Your task to perform on an android device: Is it going to rain today? Image 0: 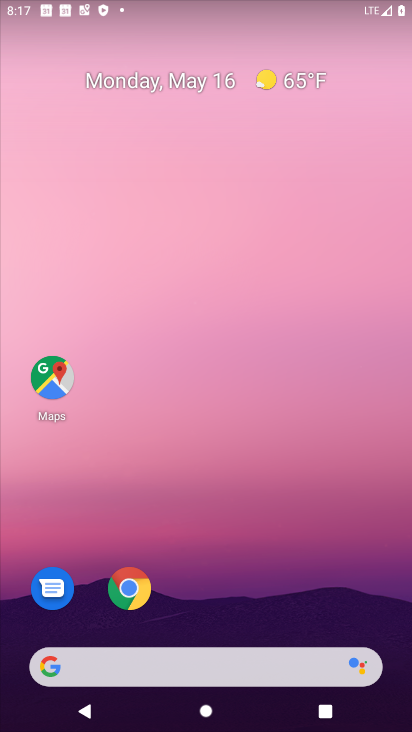
Step 0: drag from (216, 538) to (198, 25)
Your task to perform on an android device: Is it going to rain today? Image 1: 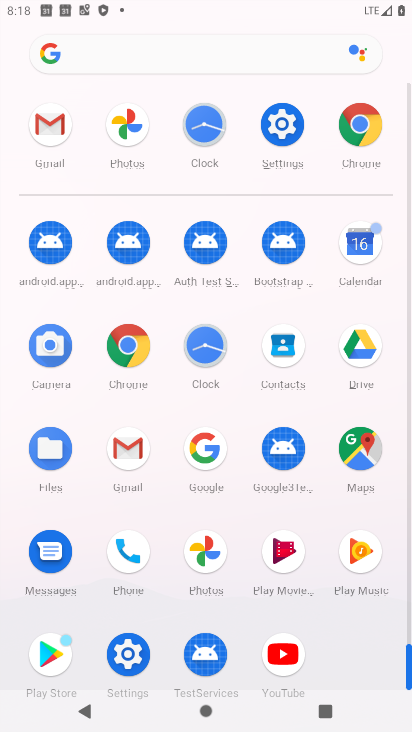
Step 1: click (125, 344)
Your task to perform on an android device: Is it going to rain today? Image 2: 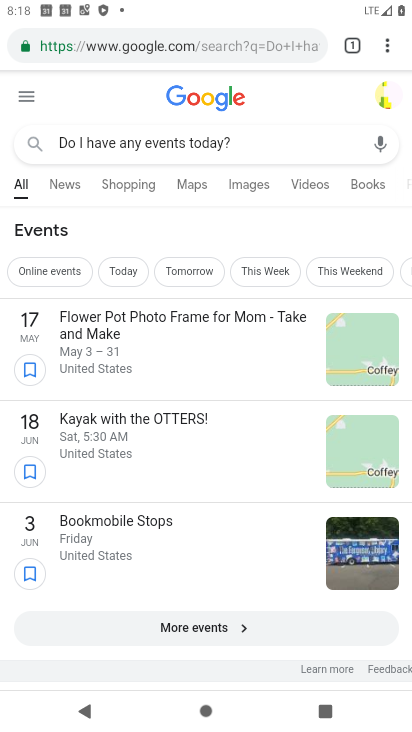
Step 2: click (267, 60)
Your task to perform on an android device: Is it going to rain today? Image 3: 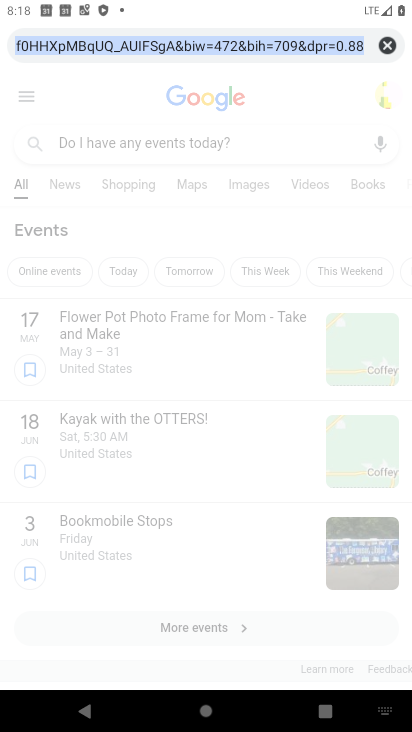
Step 3: click (381, 46)
Your task to perform on an android device: Is it going to rain today? Image 4: 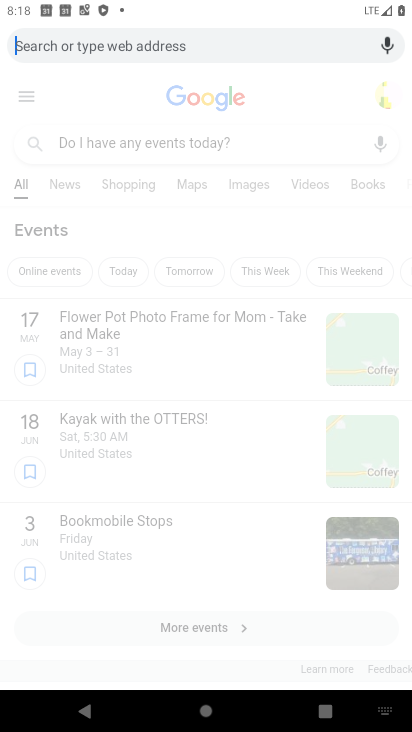
Step 4: type "Is it going to rain today?"
Your task to perform on an android device: Is it going to rain today? Image 5: 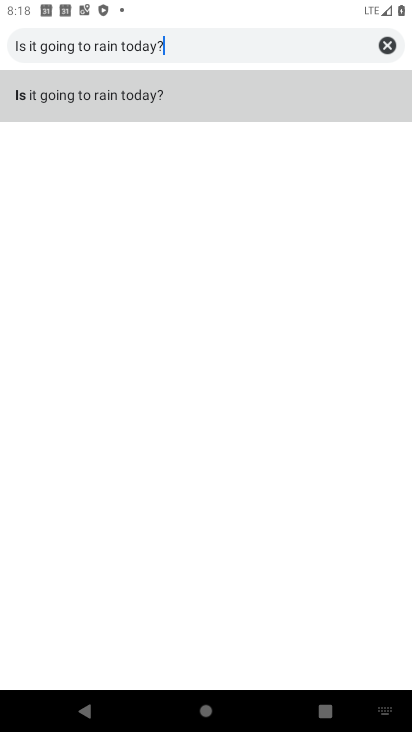
Step 5: type ""
Your task to perform on an android device: Is it going to rain today? Image 6: 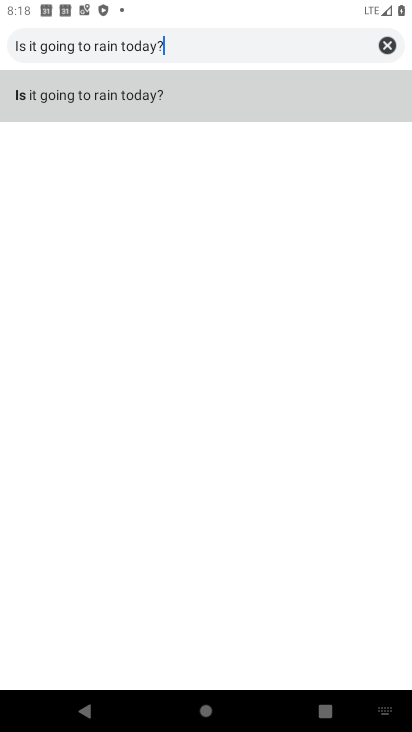
Step 6: click (113, 91)
Your task to perform on an android device: Is it going to rain today? Image 7: 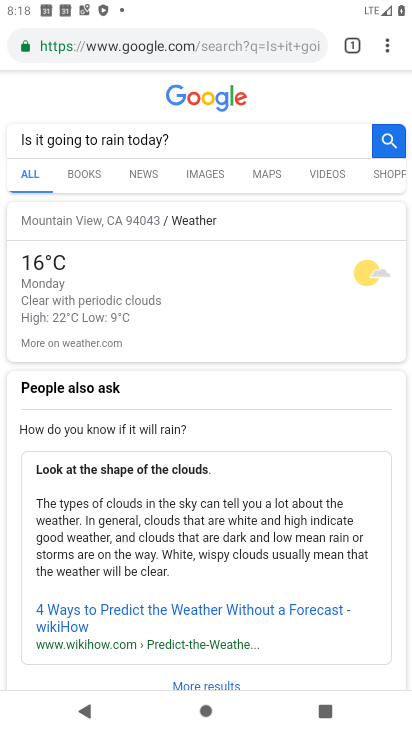
Step 7: task complete